Your task to perform on an android device: toggle notification dots Image 0: 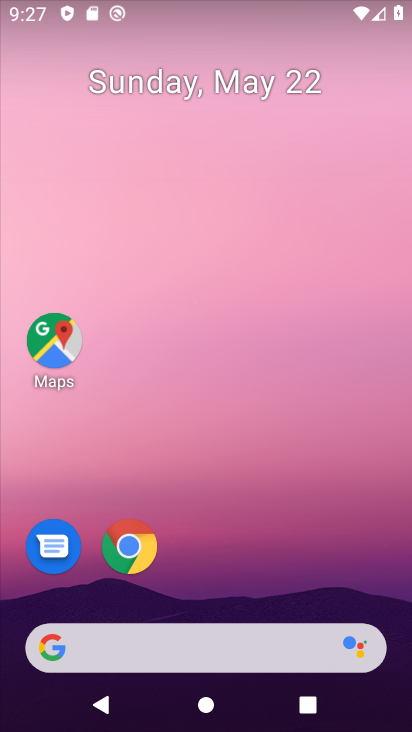
Step 0: drag from (220, 586) to (217, 152)
Your task to perform on an android device: toggle notification dots Image 1: 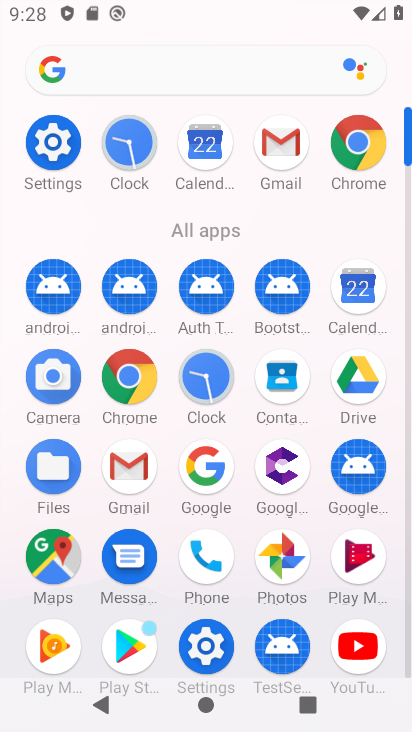
Step 1: click (48, 156)
Your task to perform on an android device: toggle notification dots Image 2: 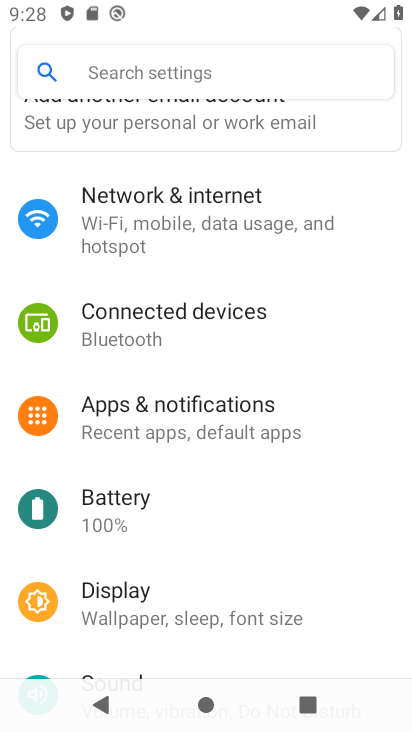
Step 2: click (179, 435)
Your task to perform on an android device: toggle notification dots Image 3: 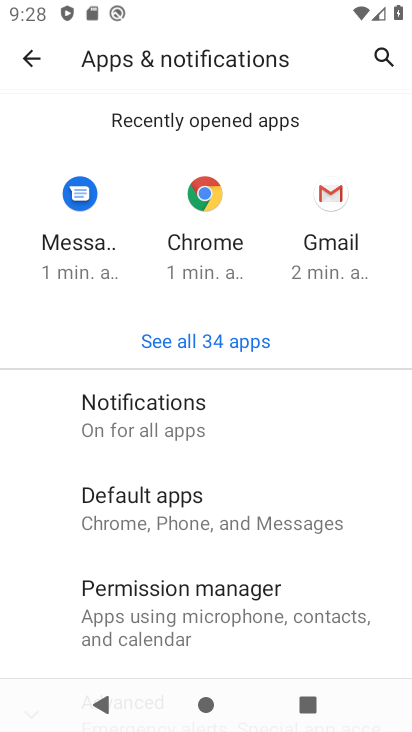
Step 3: click (179, 435)
Your task to perform on an android device: toggle notification dots Image 4: 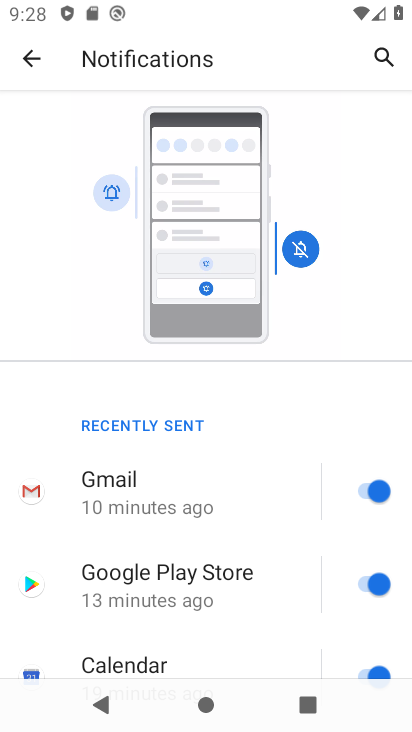
Step 4: drag from (229, 646) to (232, 124)
Your task to perform on an android device: toggle notification dots Image 5: 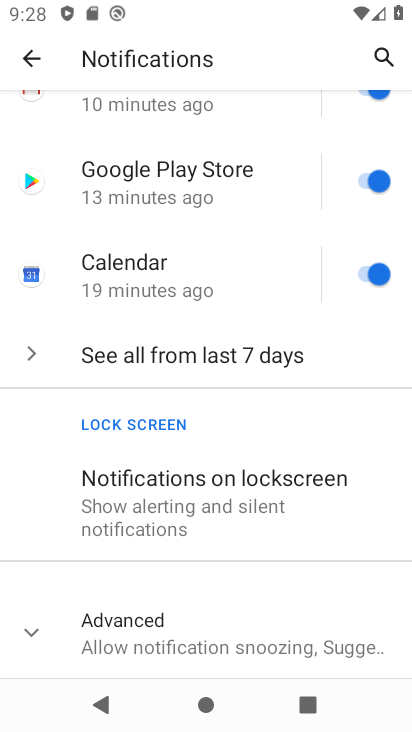
Step 5: click (290, 648)
Your task to perform on an android device: toggle notification dots Image 6: 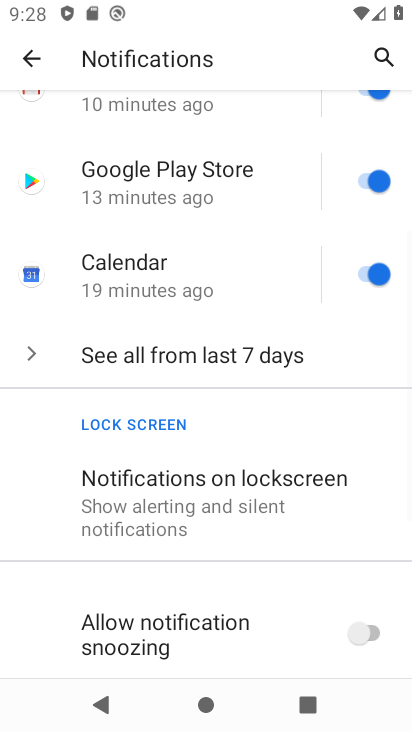
Step 6: drag from (290, 648) to (229, 281)
Your task to perform on an android device: toggle notification dots Image 7: 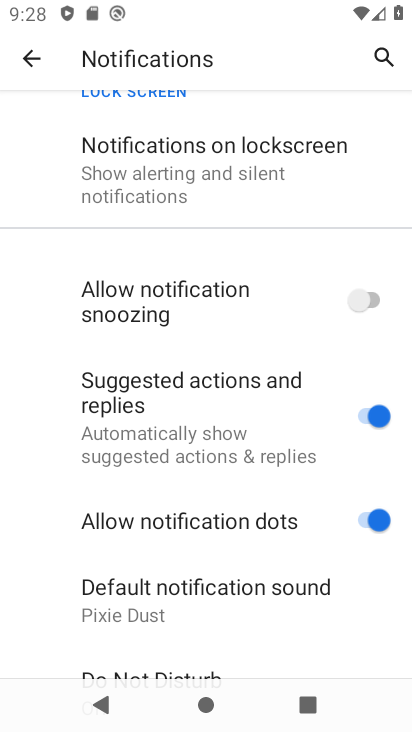
Step 7: click (353, 518)
Your task to perform on an android device: toggle notification dots Image 8: 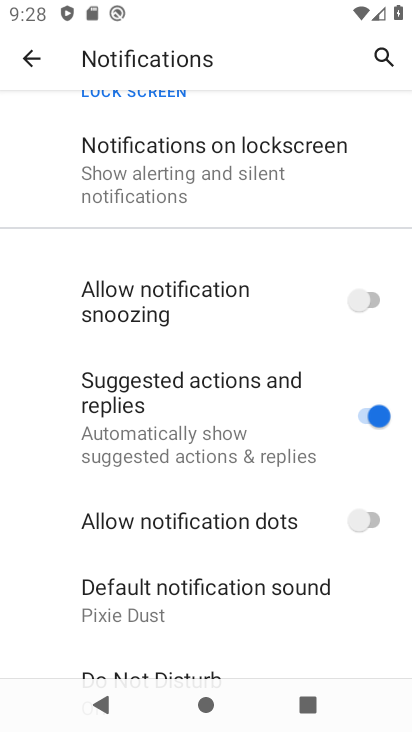
Step 8: task complete